Your task to perform on an android device: Search for pizza restaurants on Maps Image 0: 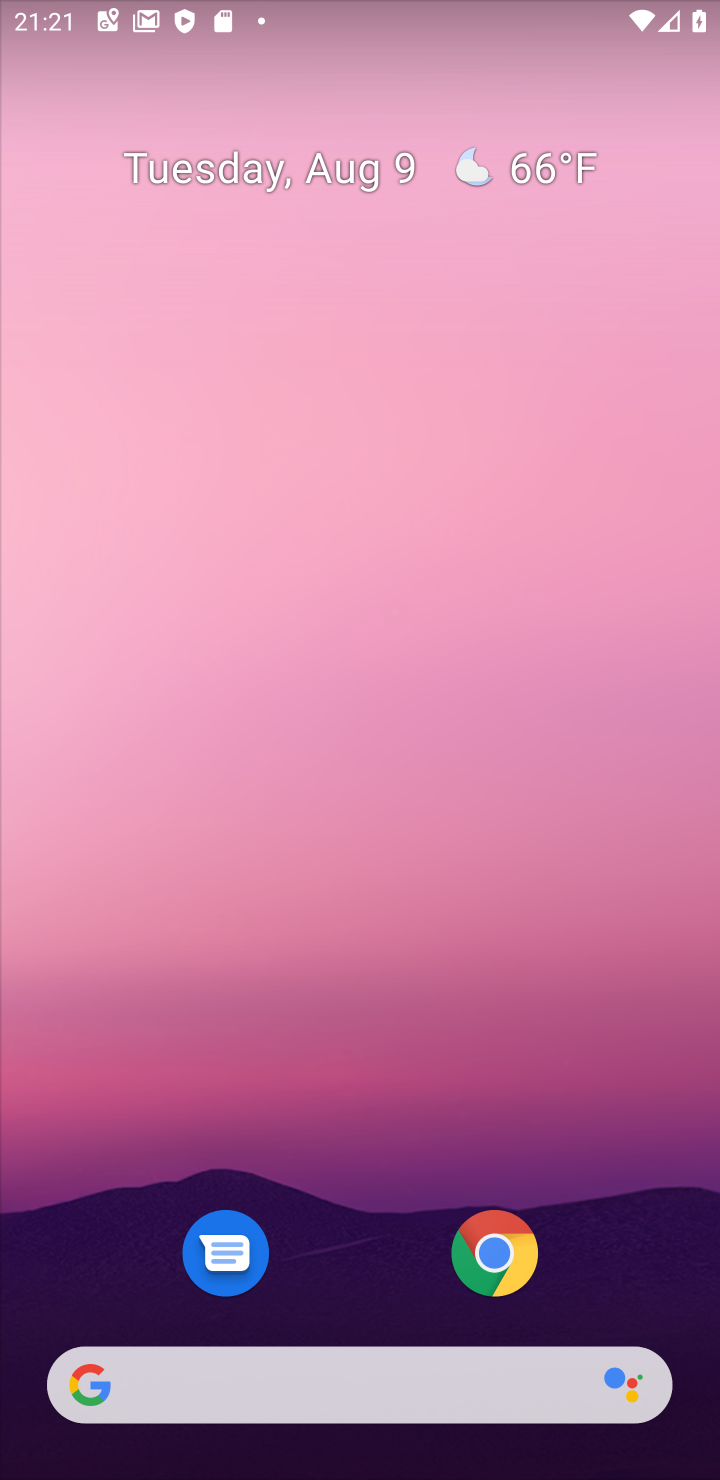
Step 0: drag from (338, 1021) to (441, 208)
Your task to perform on an android device: Search for pizza restaurants on Maps Image 1: 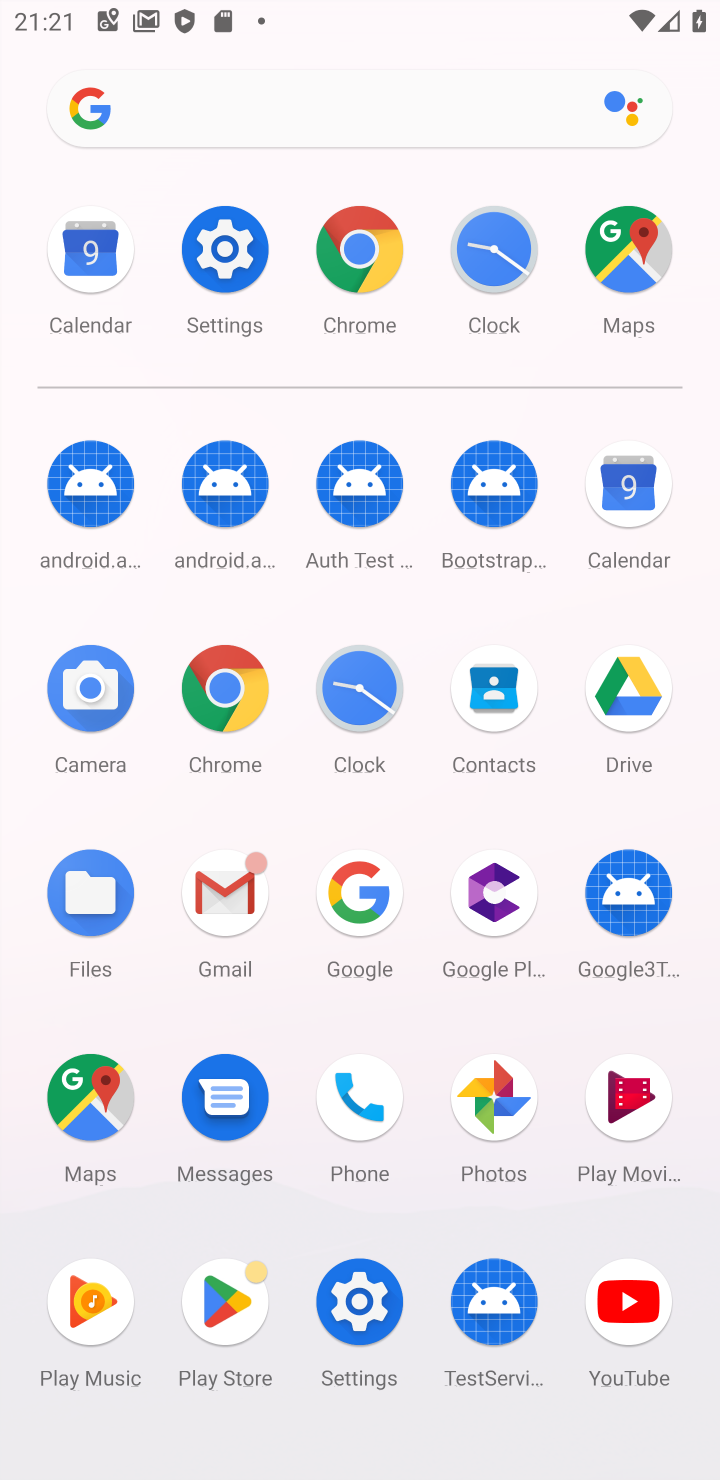
Step 1: click (97, 1082)
Your task to perform on an android device: Search for pizza restaurants on Maps Image 2: 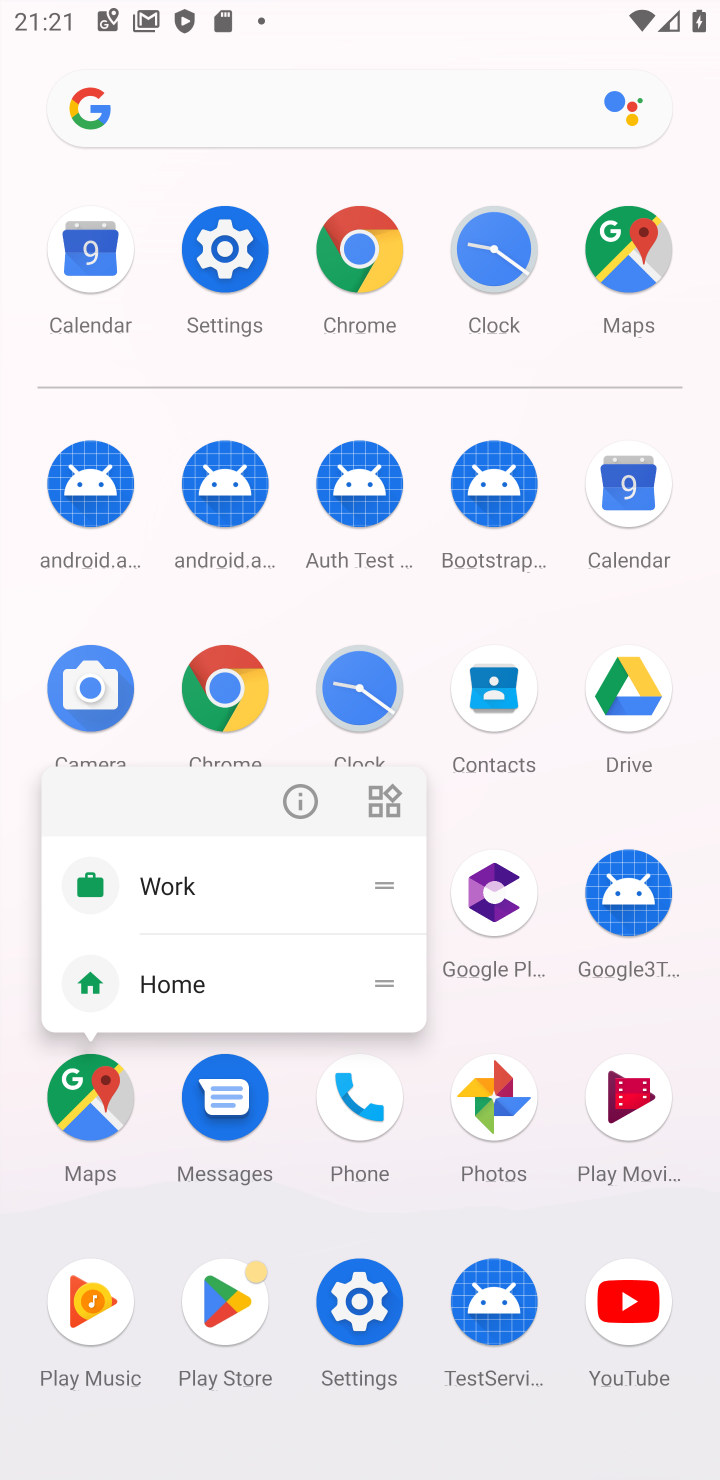
Step 2: click (95, 1091)
Your task to perform on an android device: Search for pizza restaurants on Maps Image 3: 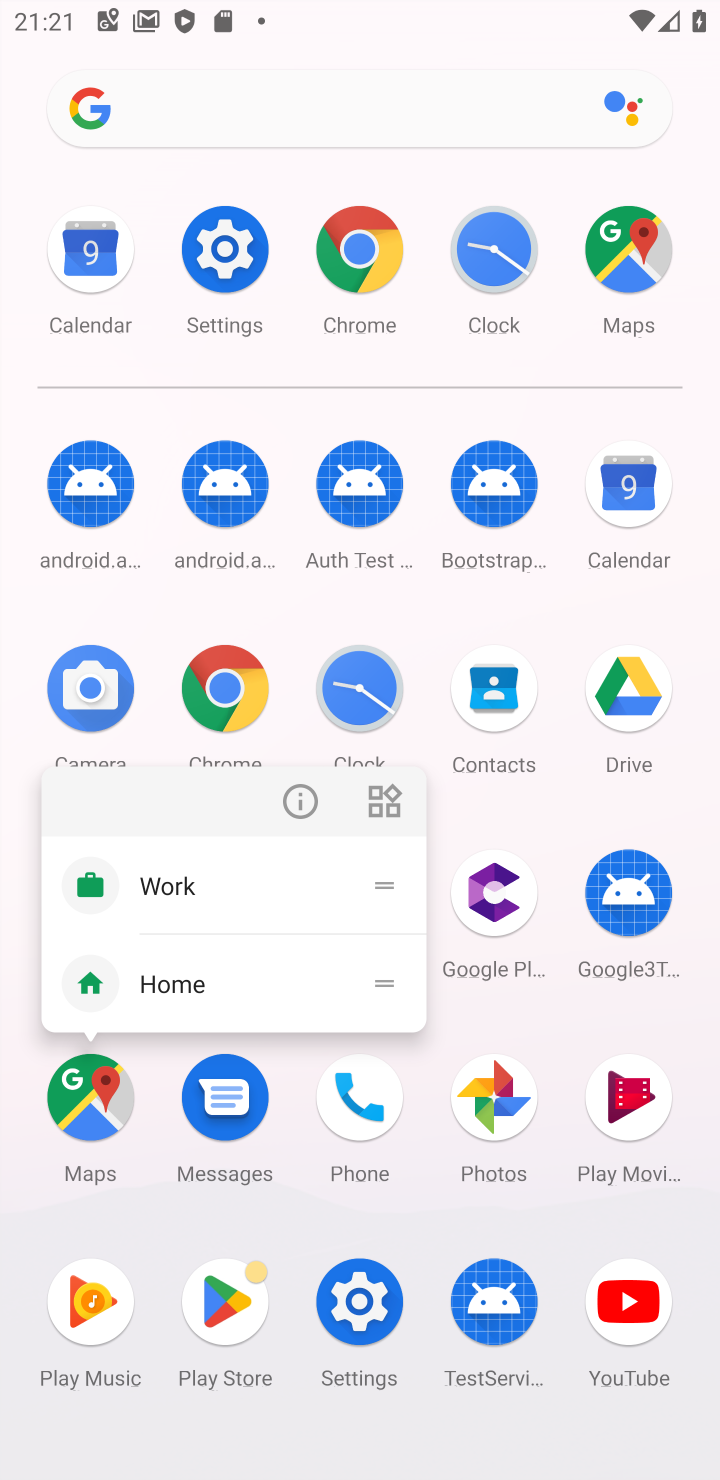
Step 3: click (83, 1118)
Your task to perform on an android device: Search for pizza restaurants on Maps Image 4: 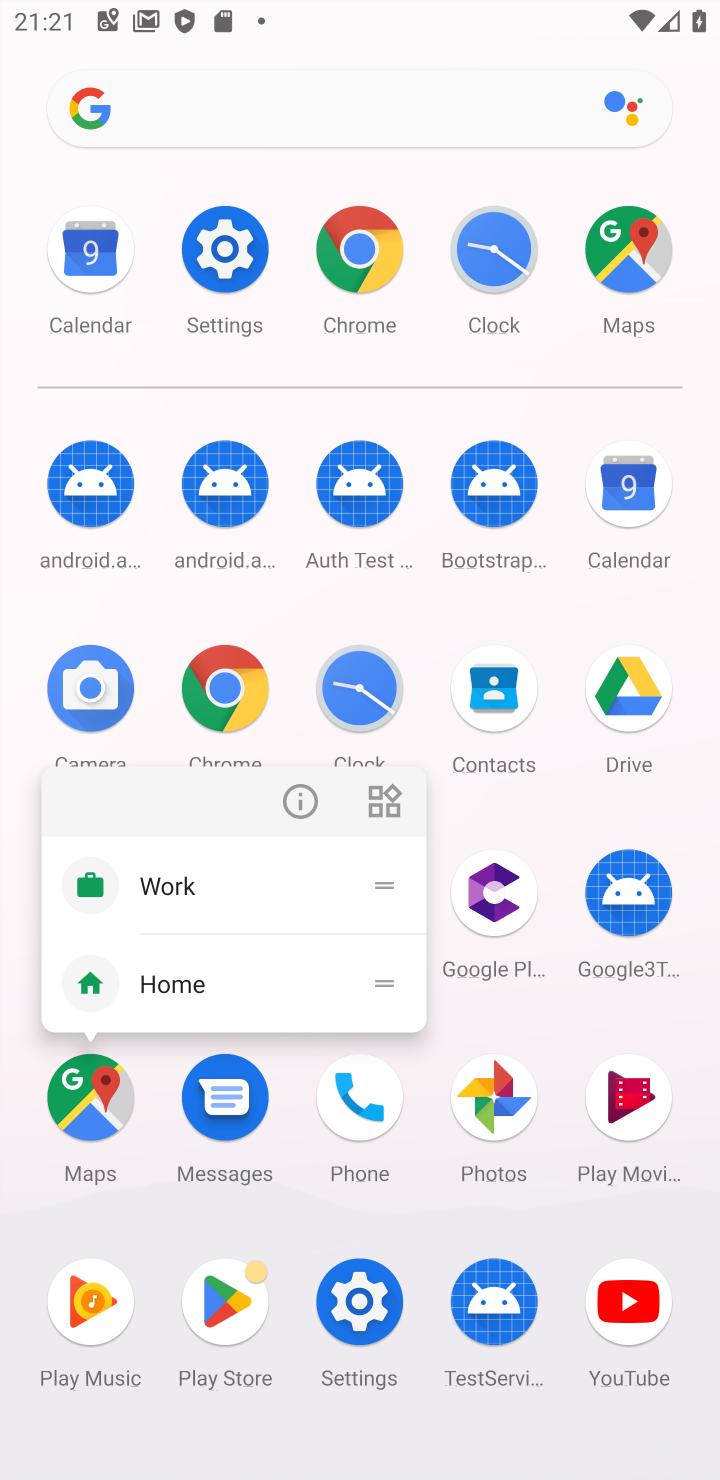
Step 4: click (94, 1119)
Your task to perform on an android device: Search for pizza restaurants on Maps Image 5: 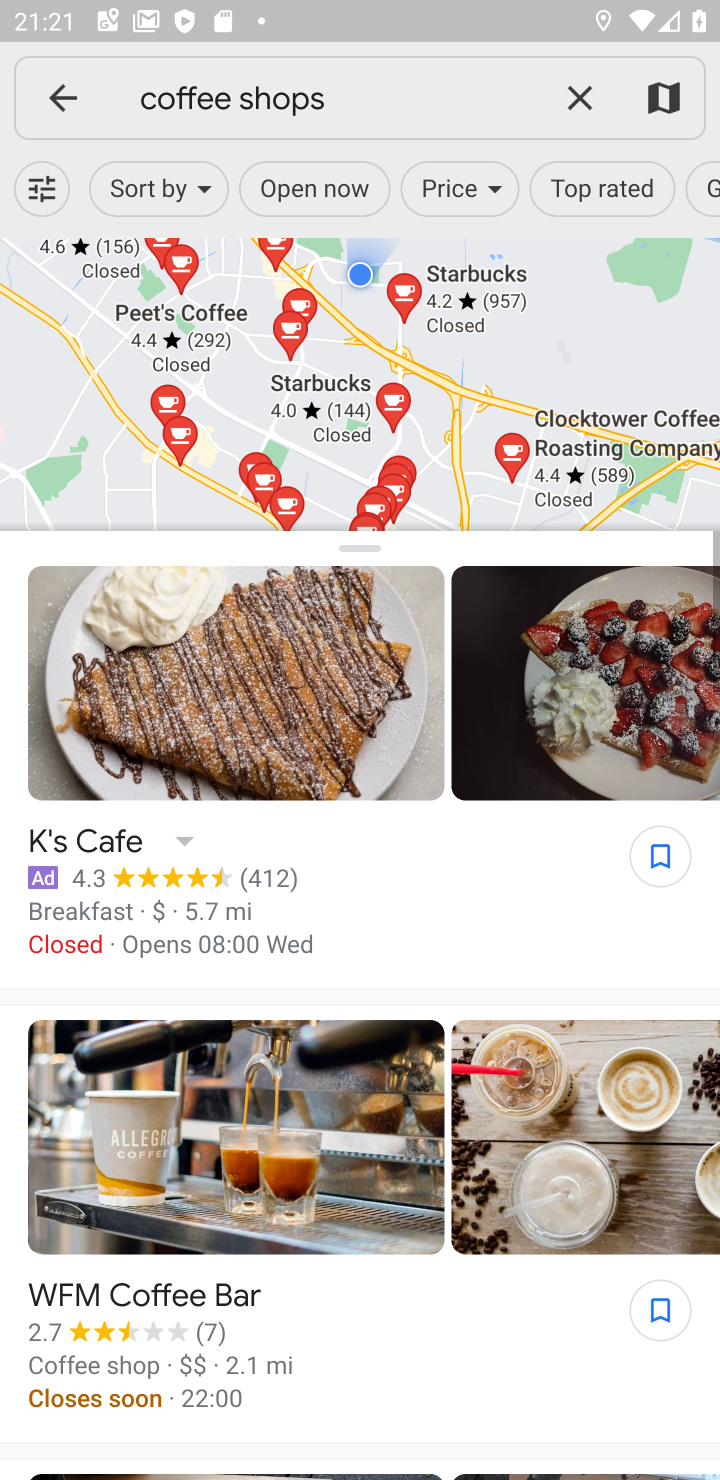
Step 5: click (497, 110)
Your task to perform on an android device: Search for pizza restaurants on Maps Image 6: 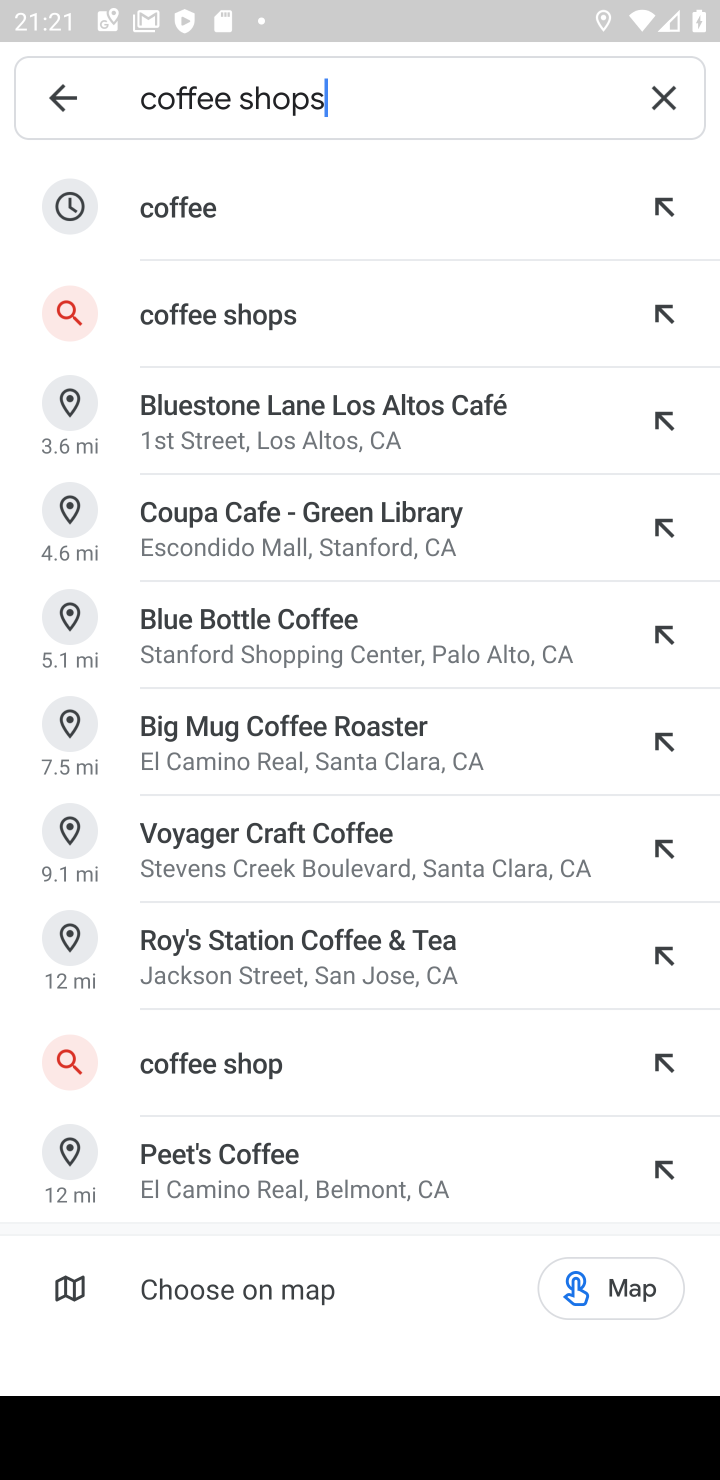
Step 6: click (674, 88)
Your task to perform on an android device: Search for pizza restaurants on Maps Image 7: 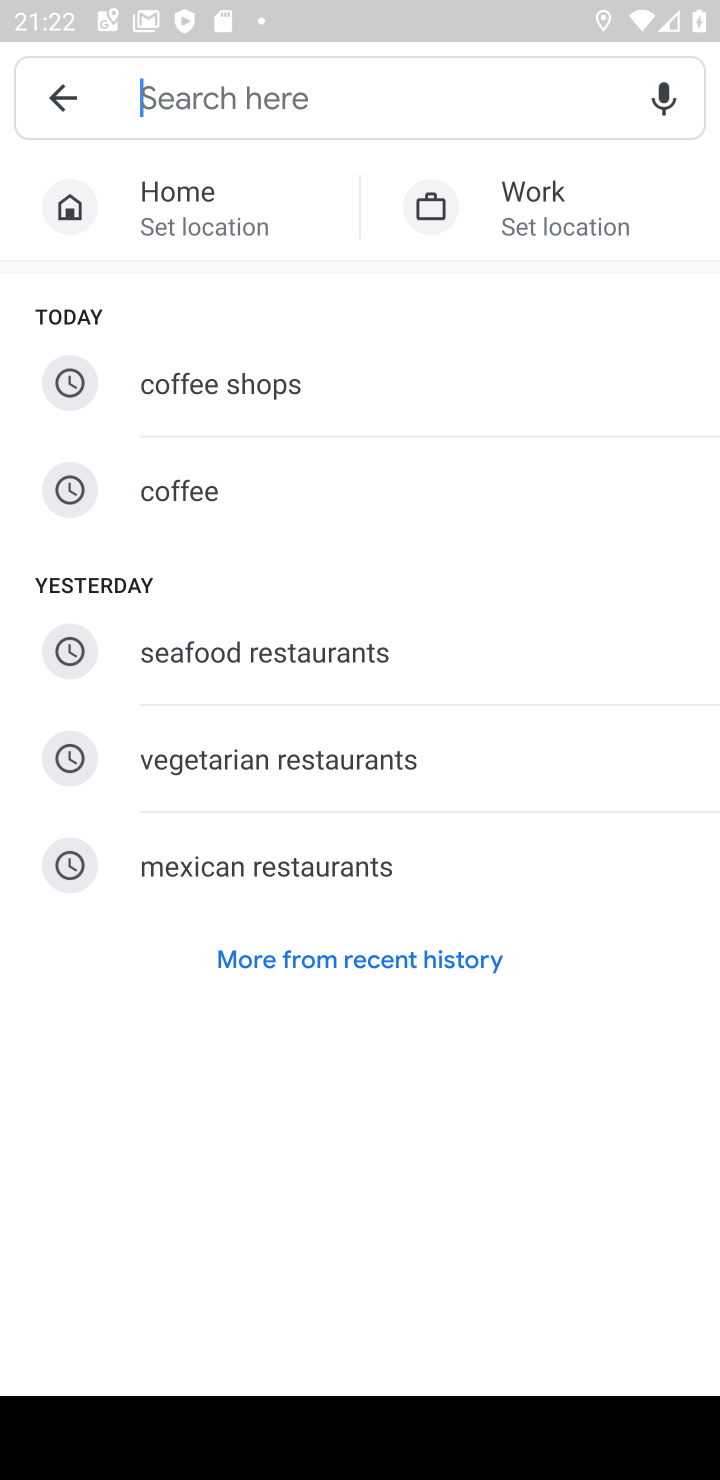
Step 7: type "pizza restaurants"
Your task to perform on an android device: Search for pizza restaurants on Maps Image 8: 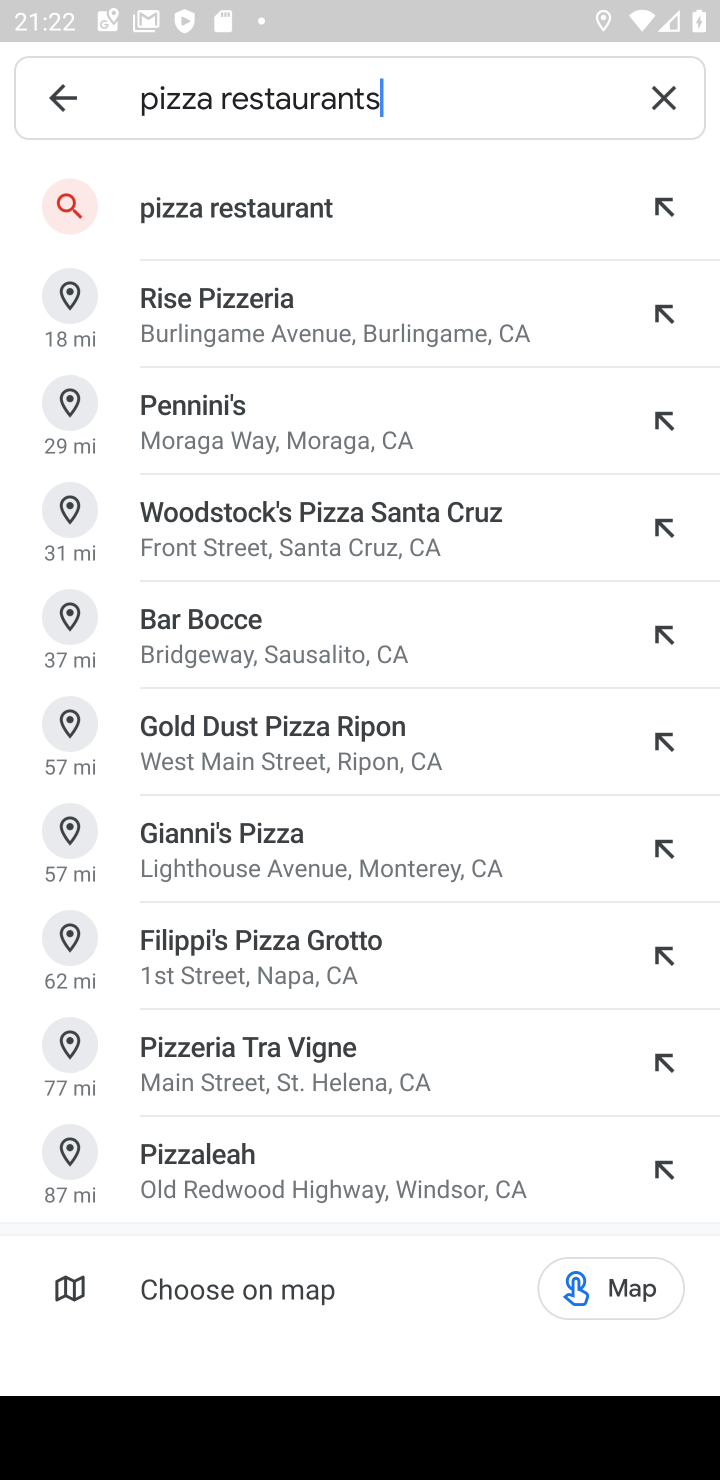
Step 8: press enter
Your task to perform on an android device: Search for pizza restaurants on Maps Image 9: 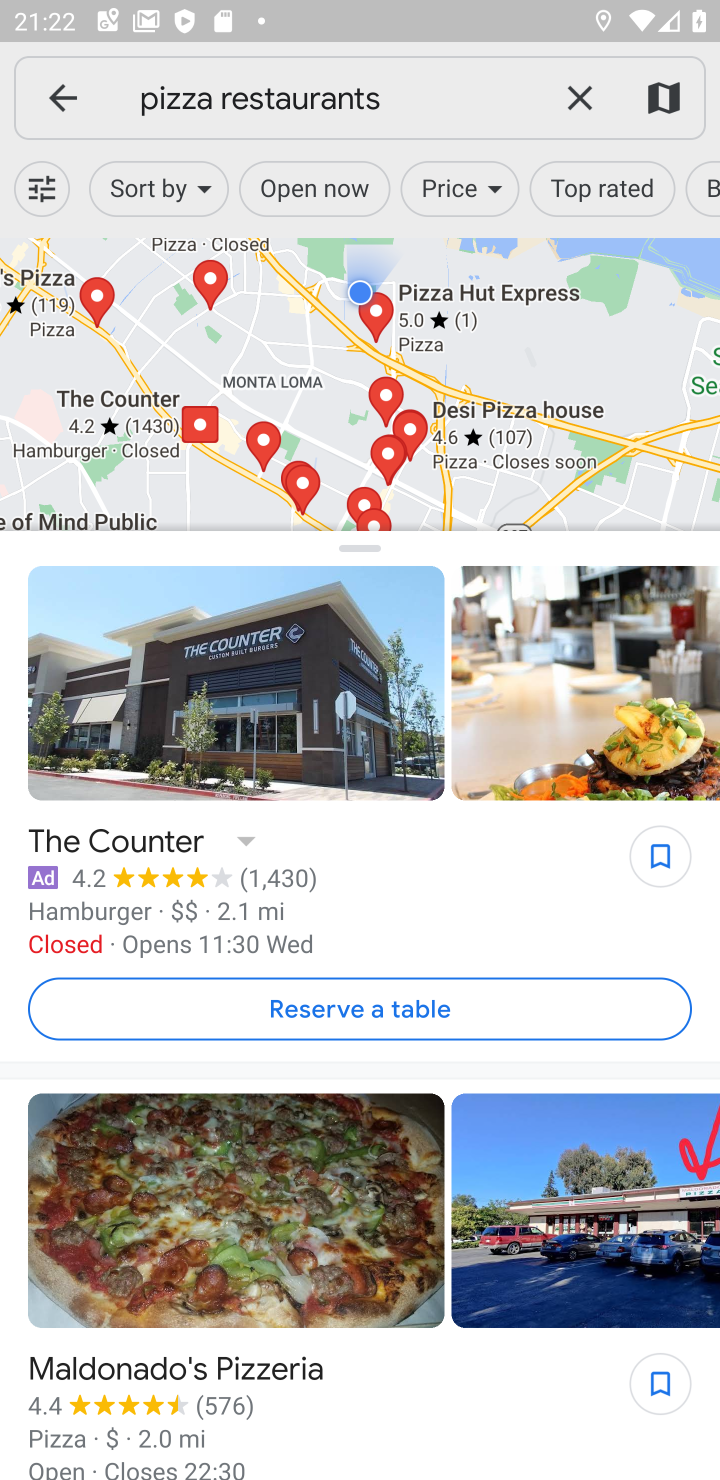
Step 9: task complete